Your task to perform on an android device: turn notification dots on Image 0: 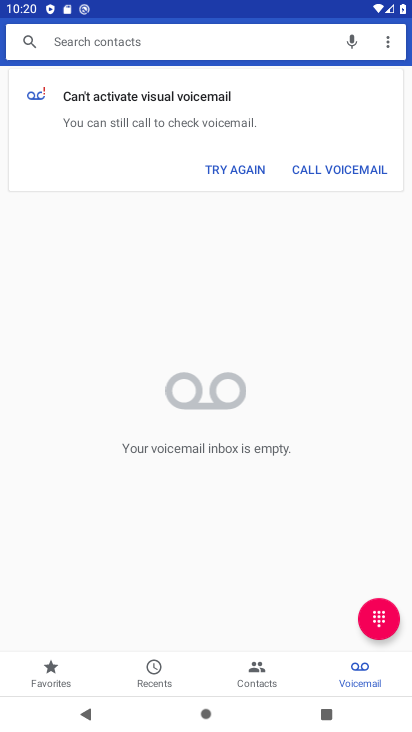
Step 0: press home button
Your task to perform on an android device: turn notification dots on Image 1: 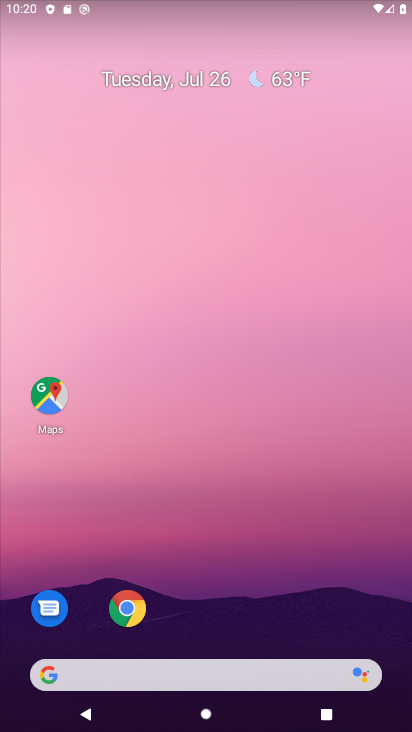
Step 1: drag from (242, 584) to (297, 107)
Your task to perform on an android device: turn notification dots on Image 2: 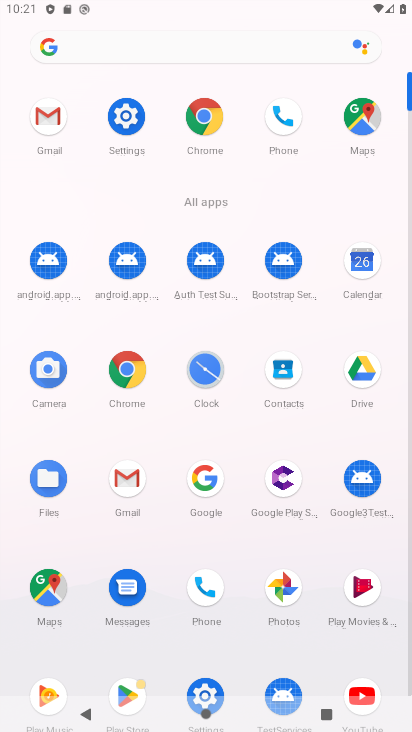
Step 2: click (134, 104)
Your task to perform on an android device: turn notification dots on Image 3: 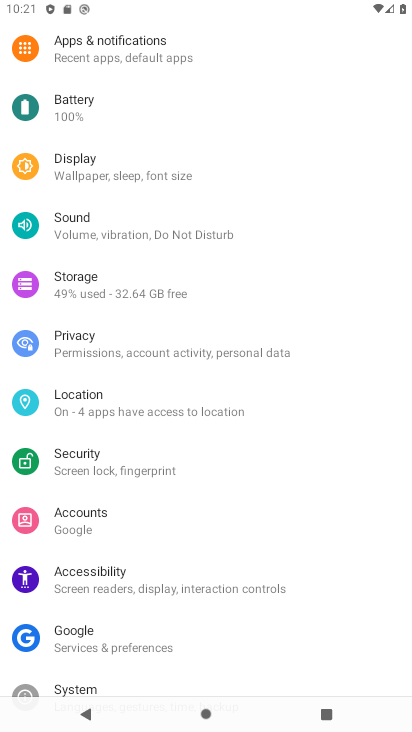
Step 3: drag from (183, 442) to (198, 191)
Your task to perform on an android device: turn notification dots on Image 4: 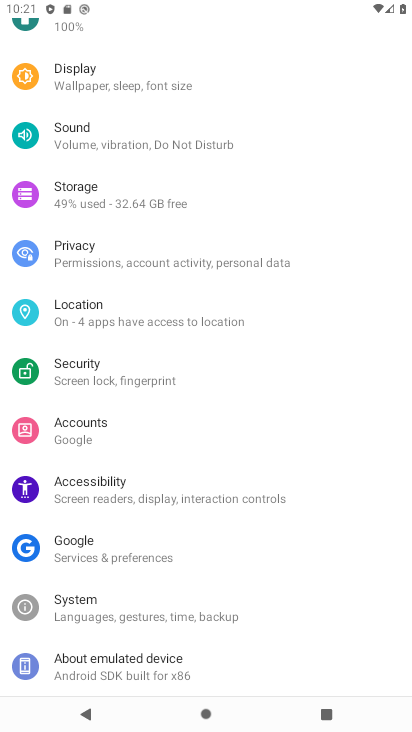
Step 4: drag from (108, 107) to (97, 360)
Your task to perform on an android device: turn notification dots on Image 5: 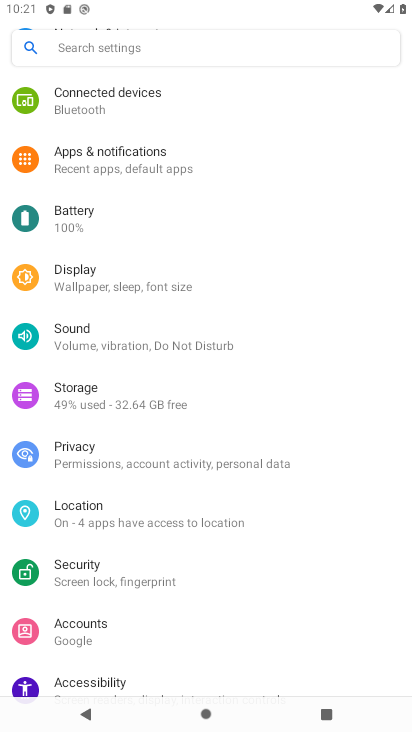
Step 5: click (145, 157)
Your task to perform on an android device: turn notification dots on Image 6: 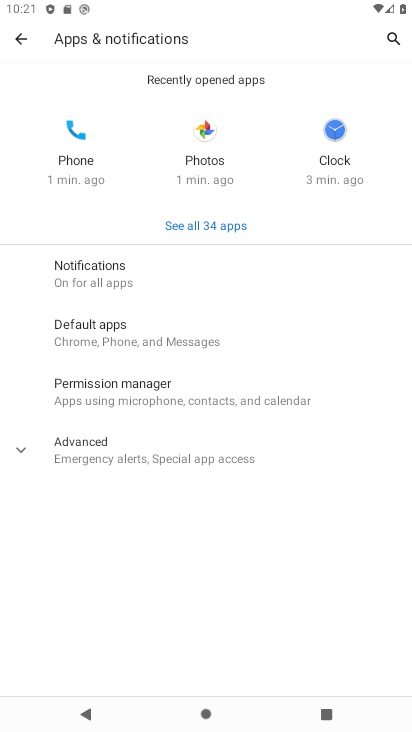
Step 6: click (112, 282)
Your task to perform on an android device: turn notification dots on Image 7: 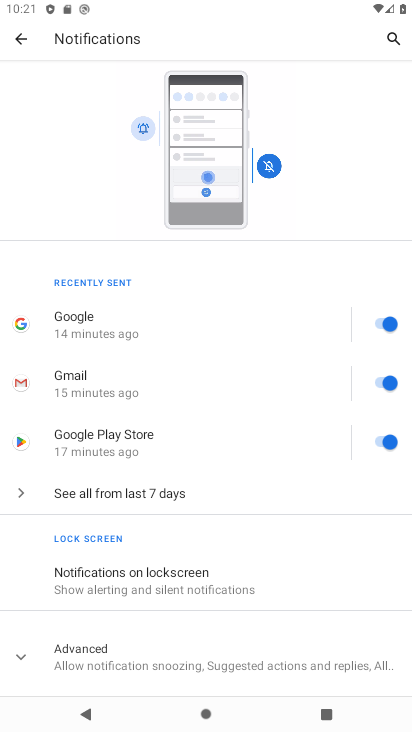
Step 7: click (20, 648)
Your task to perform on an android device: turn notification dots on Image 8: 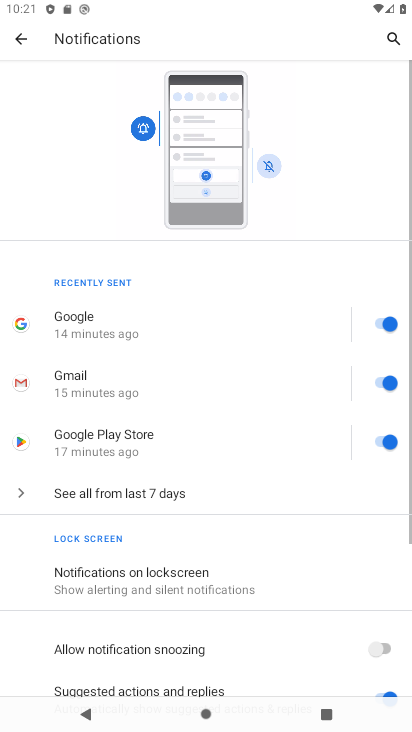
Step 8: task complete